Your task to perform on an android device: Go to Amazon Image 0: 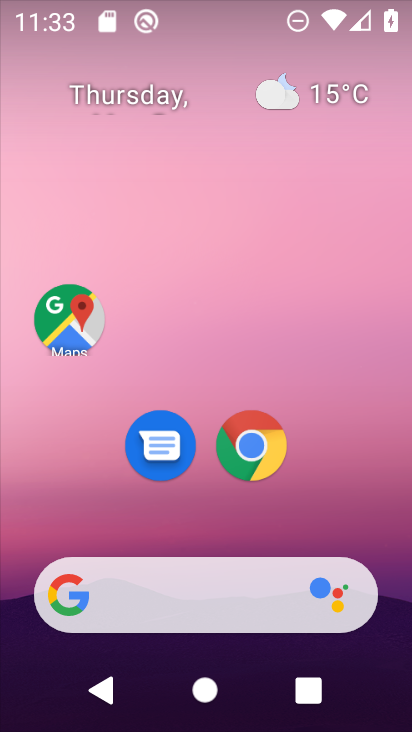
Step 0: click (255, 446)
Your task to perform on an android device: Go to Amazon Image 1: 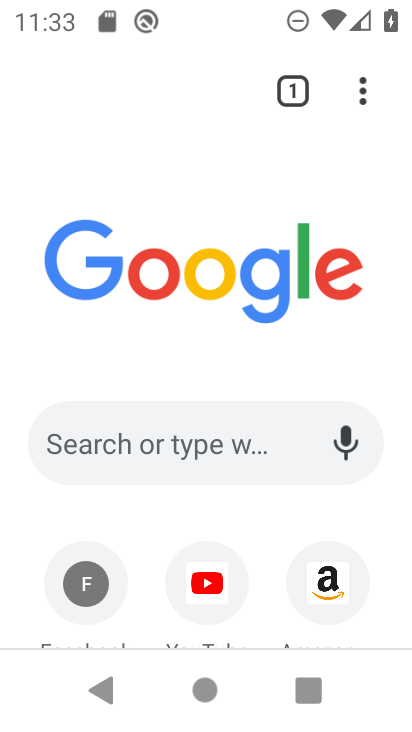
Step 1: click (322, 575)
Your task to perform on an android device: Go to Amazon Image 2: 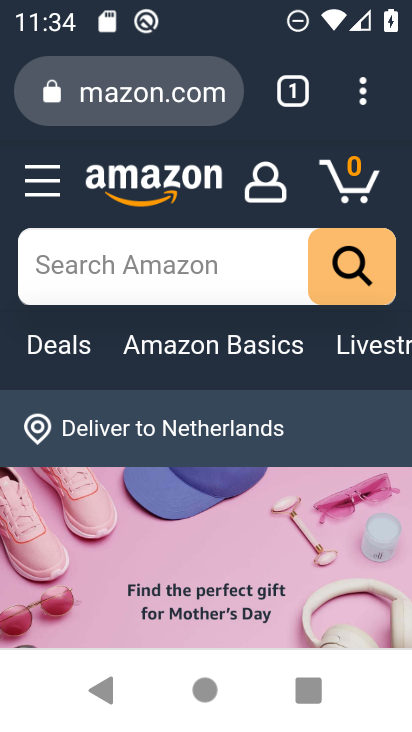
Step 2: task complete